Your task to perform on an android device: open the mobile data screen to see how much data has been used Image 0: 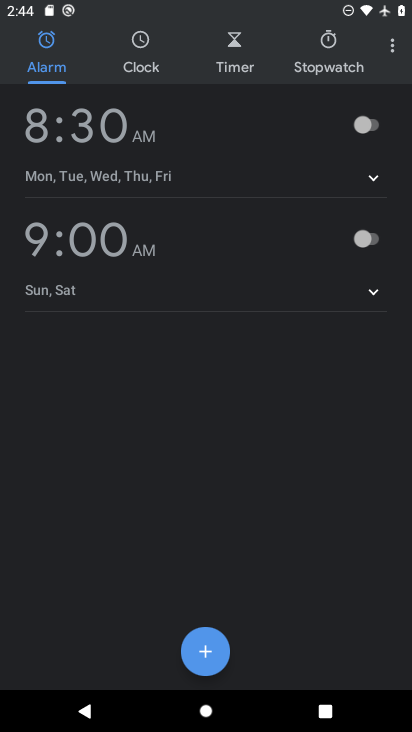
Step 0: press home button
Your task to perform on an android device: open the mobile data screen to see how much data has been used Image 1: 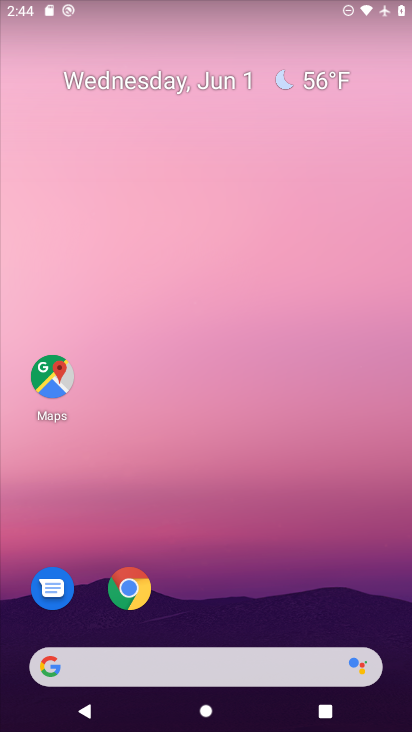
Step 1: drag from (224, 285) to (66, 0)
Your task to perform on an android device: open the mobile data screen to see how much data has been used Image 2: 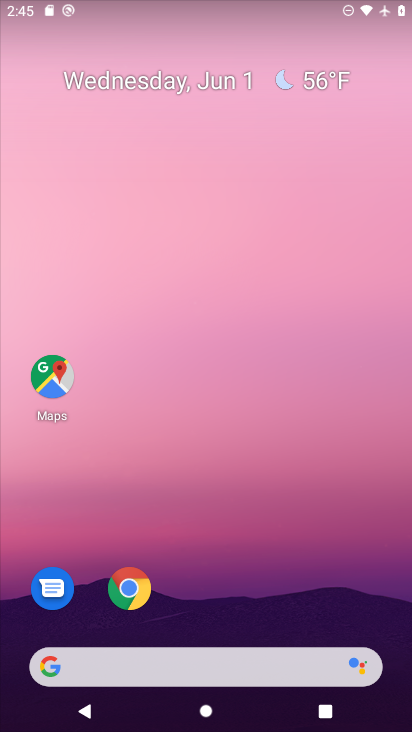
Step 2: drag from (261, 325) to (180, 7)
Your task to perform on an android device: open the mobile data screen to see how much data has been used Image 3: 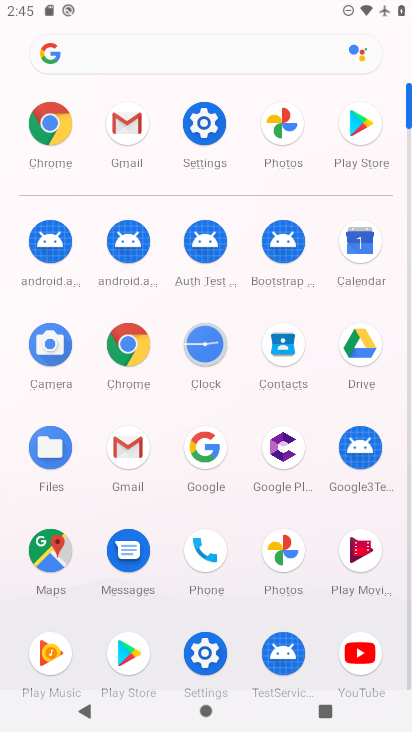
Step 3: click (198, 136)
Your task to perform on an android device: open the mobile data screen to see how much data has been used Image 4: 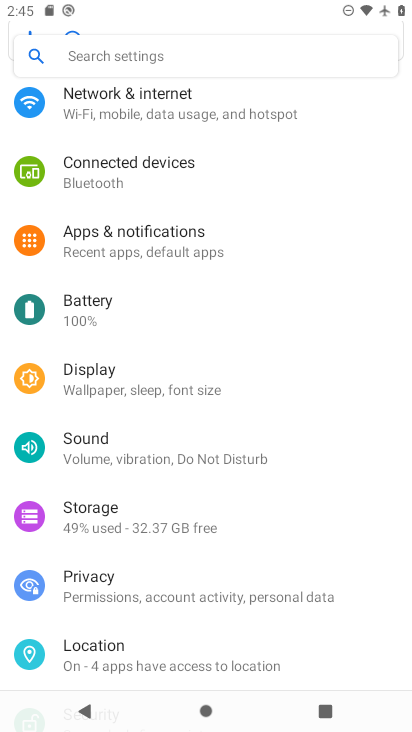
Step 4: drag from (233, 192) to (228, 544)
Your task to perform on an android device: open the mobile data screen to see how much data has been used Image 5: 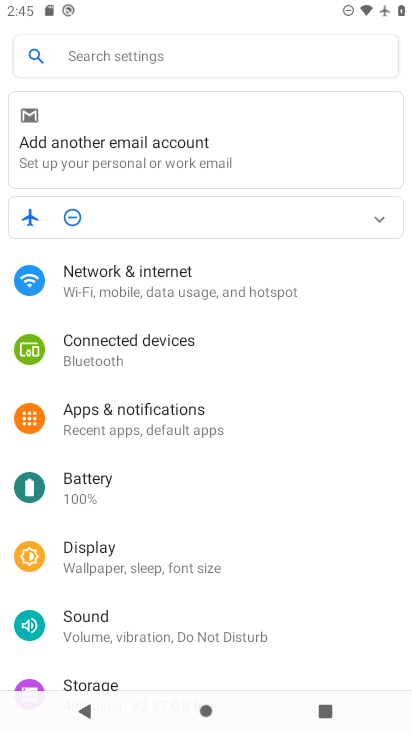
Step 5: click (133, 272)
Your task to perform on an android device: open the mobile data screen to see how much data has been used Image 6: 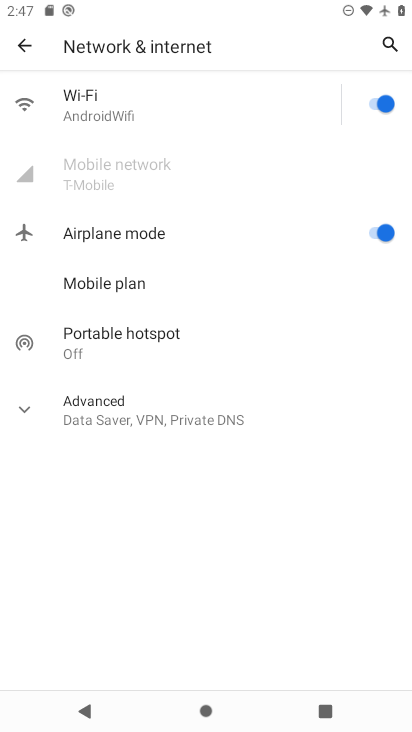
Step 6: task complete